Your task to perform on an android device: open device folders in google photos Image 0: 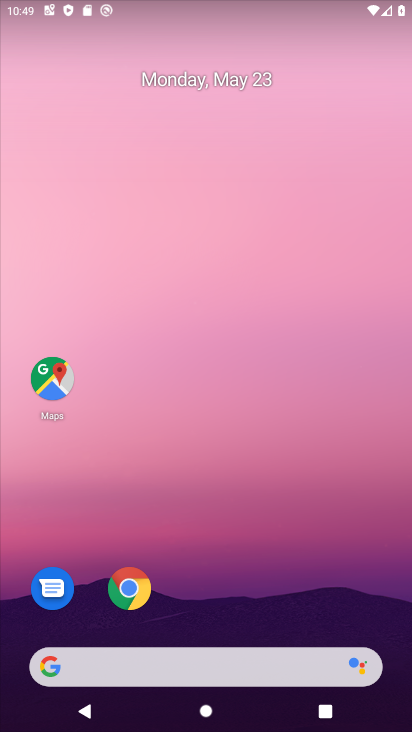
Step 0: drag from (212, 581) to (216, 223)
Your task to perform on an android device: open device folders in google photos Image 1: 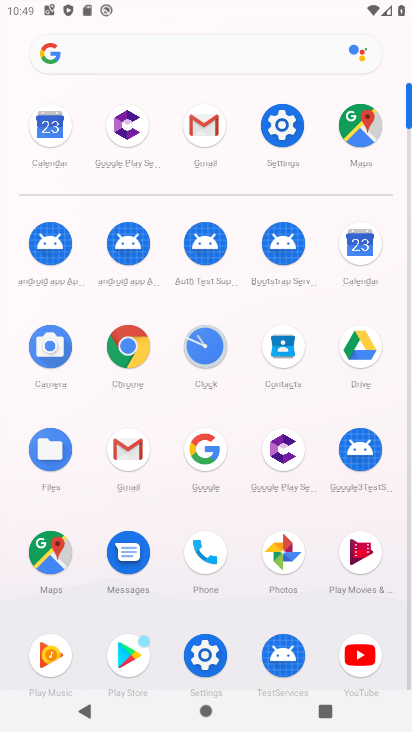
Step 1: click (277, 556)
Your task to perform on an android device: open device folders in google photos Image 2: 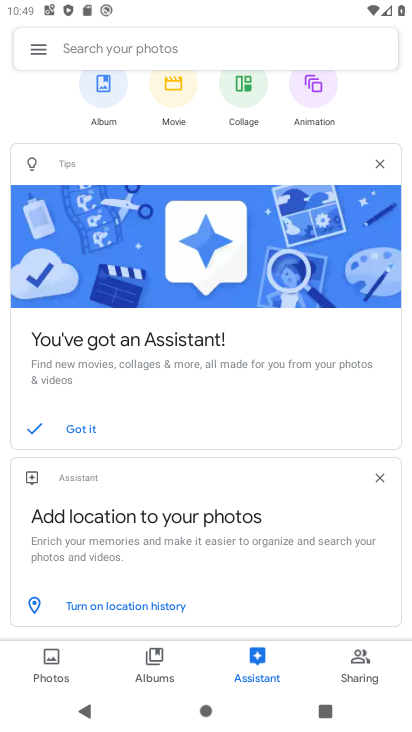
Step 2: click (44, 39)
Your task to perform on an android device: open device folders in google photos Image 3: 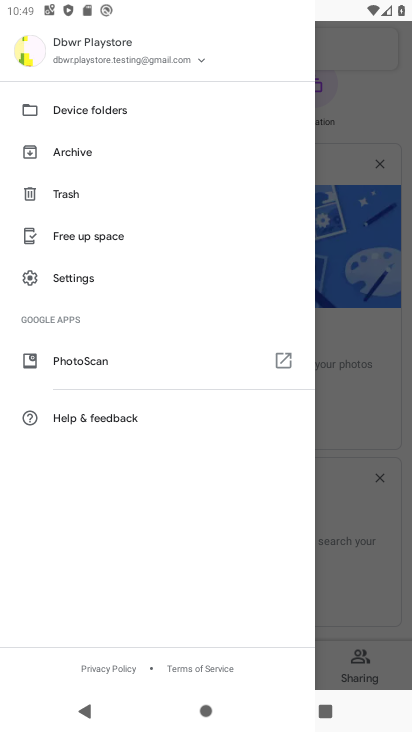
Step 3: click (89, 123)
Your task to perform on an android device: open device folders in google photos Image 4: 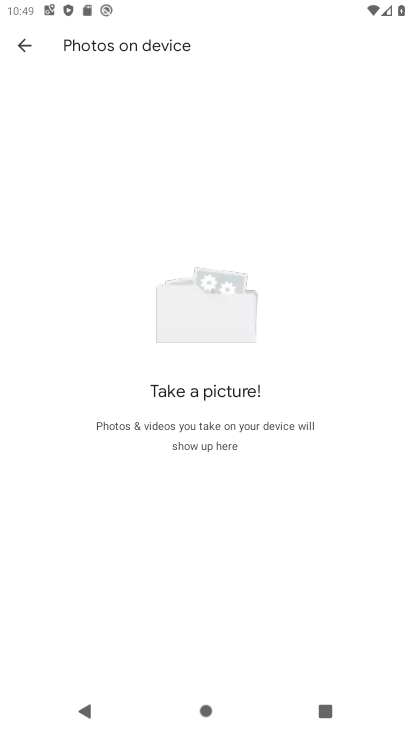
Step 4: task complete